Your task to perform on an android device: clear history in the chrome app Image 0: 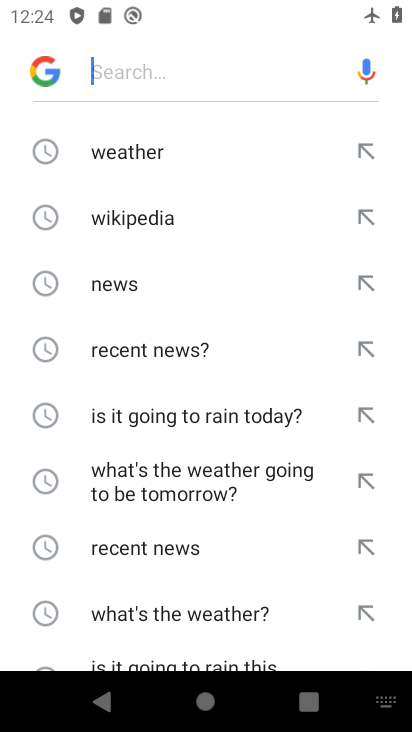
Step 0: press home button
Your task to perform on an android device: clear history in the chrome app Image 1: 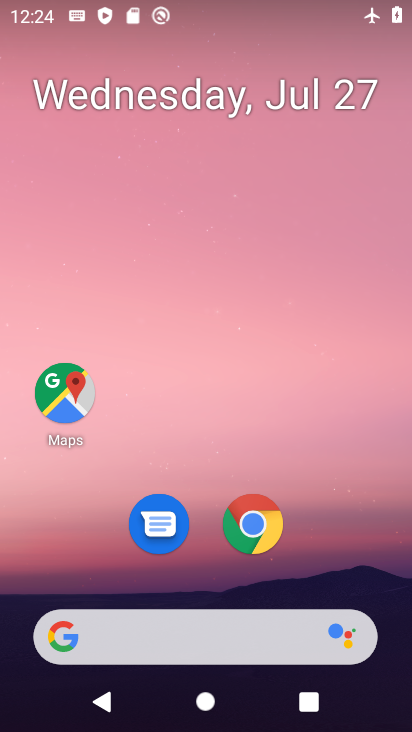
Step 1: click (269, 521)
Your task to perform on an android device: clear history in the chrome app Image 2: 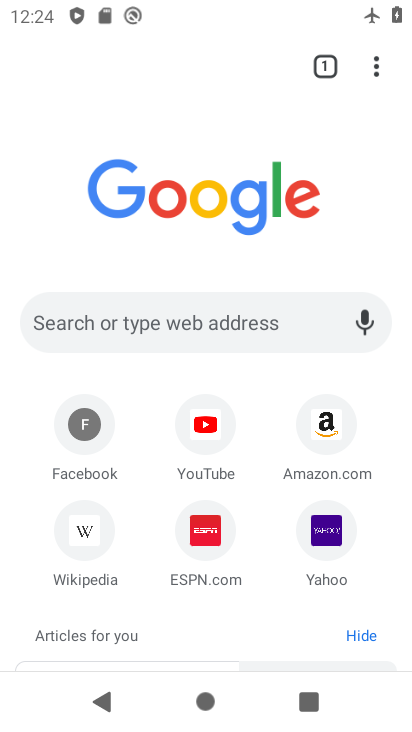
Step 2: click (376, 64)
Your task to perform on an android device: clear history in the chrome app Image 3: 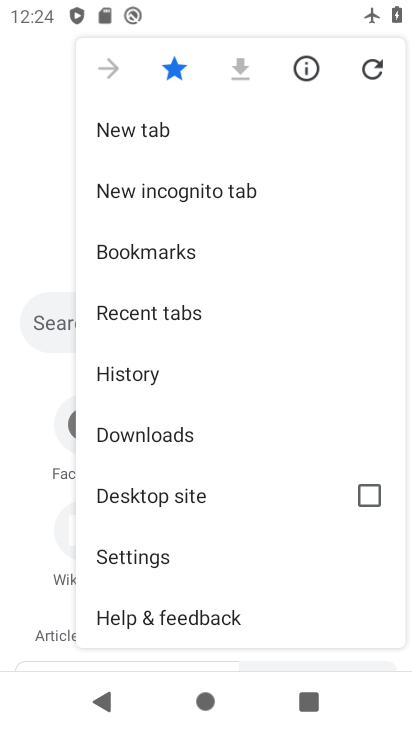
Step 3: click (144, 372)
Your task to perform on an android device: clear history in the chrome app Image 4: 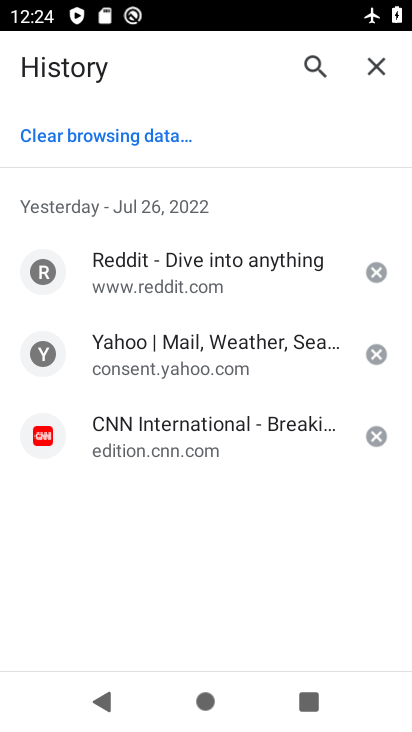
Step 4: click (122, 131)
Your task to perform on an android device: clear history in the chrome app Image 5: 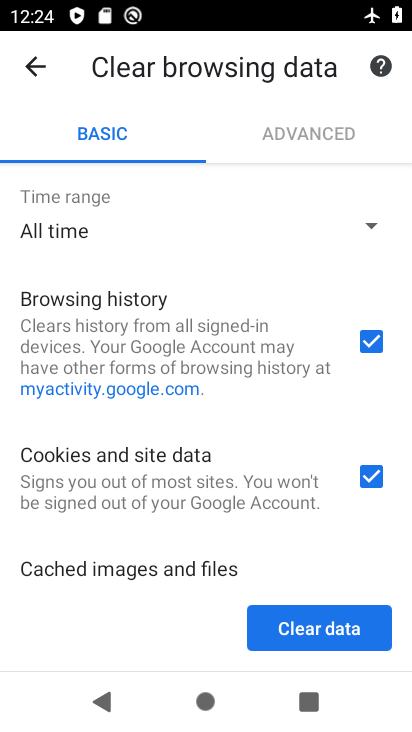
Step 5: click (321, 627)
Your task to perform on an android device: clear history in the chrome app Image 6: 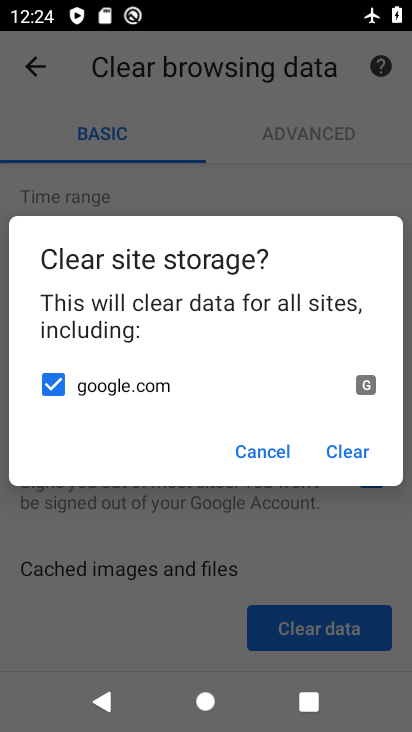
Step 6: click (365, 450)
Your task to perform on an android device: clear history in the chrome app Image 7: 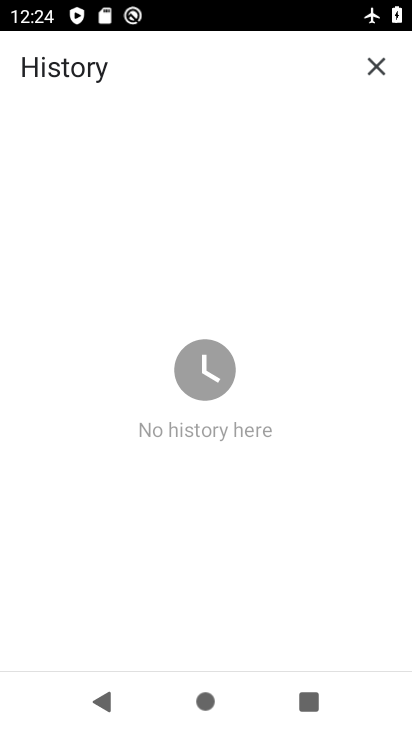
Step 7: task complete